Your task to perform on an android device: clear all cookies in the chrome app Image 0: 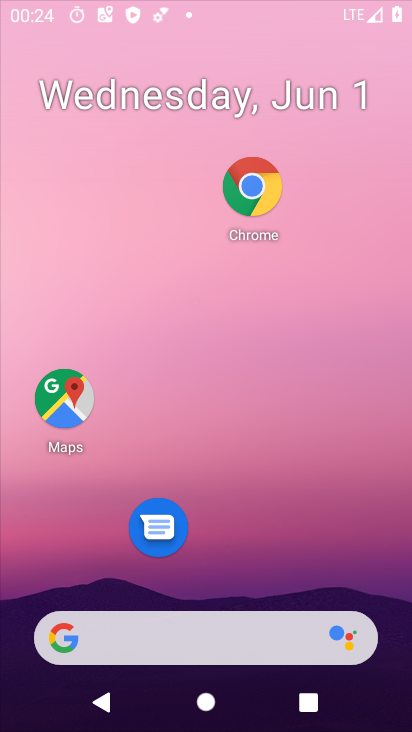
Step 0: click (247, 194)
Your task to perform on an android device: clear all cookies in the chrome app Image 1: 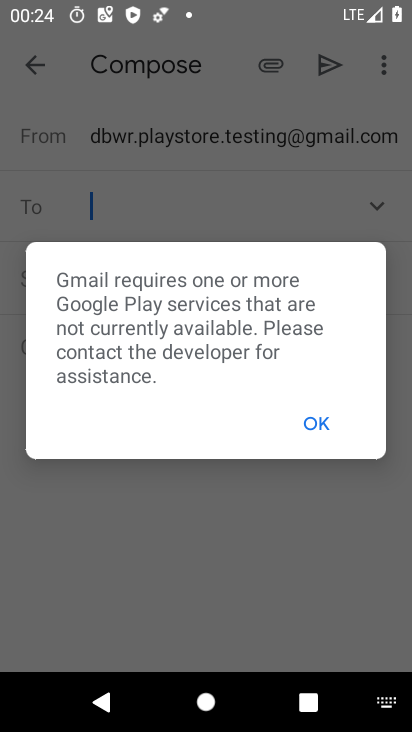
Step 1: press home button
Your task to perform on an android device: clear all cookies in the chrome app Image 2: 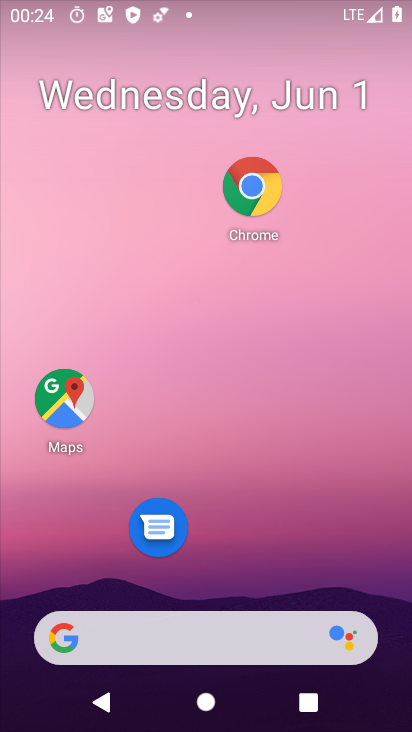
Step 2: drag from (206, 529) to (229, 17)
Your task to perform on an android device: clear all cookies in the chrome app Image 3: 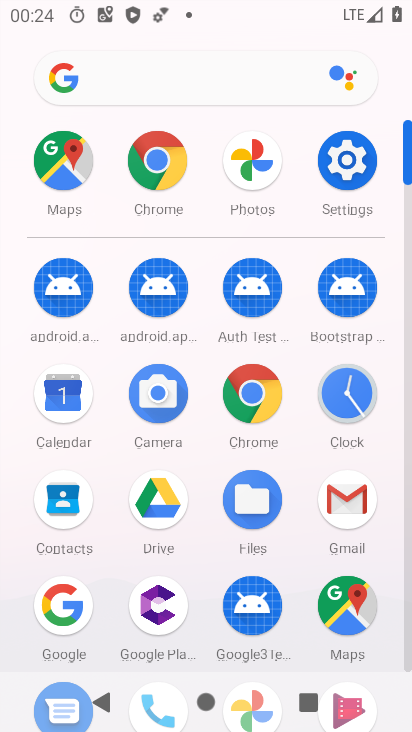
Step 3: click (254, 394)
Your task to perform on an android device: clear all cookies in the chrome app Image 4: 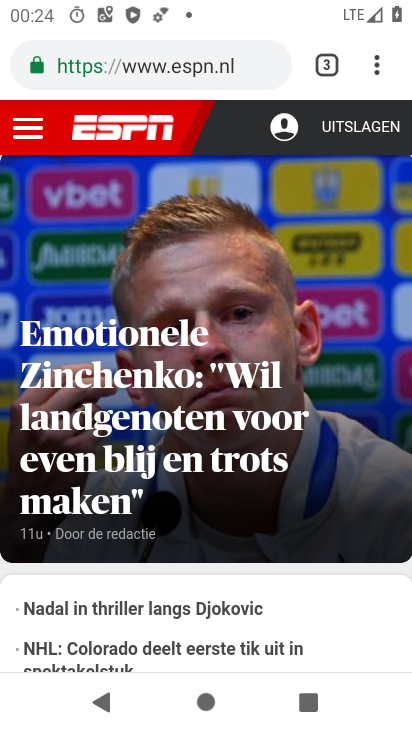
Step 4: drag from (220, 510) to (235, 319)
Your task to perform on an android device: clear all cookies in the chrome app Image 5: 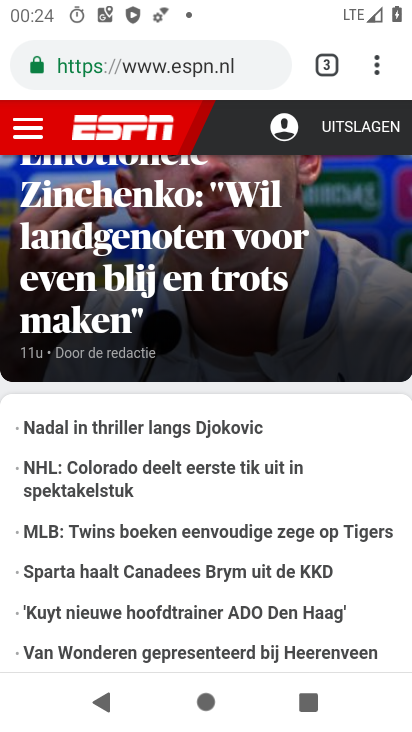
Step 5: drag from (380, 70) to (160, 588)
Your task to perform on an android device: clear all cookies in the chrome app Image 6: 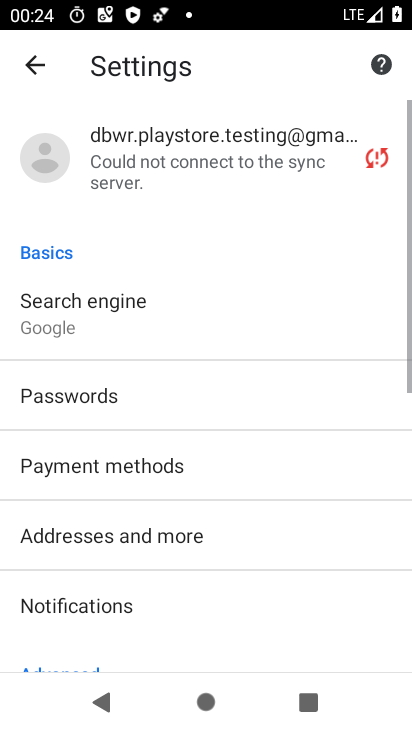
Step 6: drag from (203, 630) to (236, 133)
Your task to perform on an android device: clear all cookies in the chrome app Image 7: 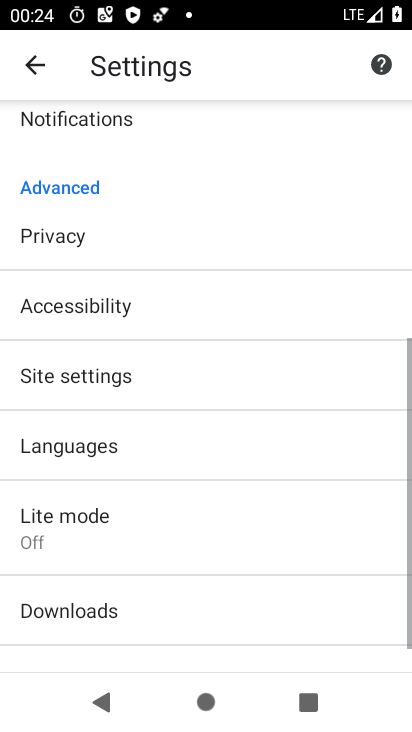
Step 7: drag from (137, 446) to (137, 277)
Your task to perform on an android device: clear all cookies in the chrome app Image 8: 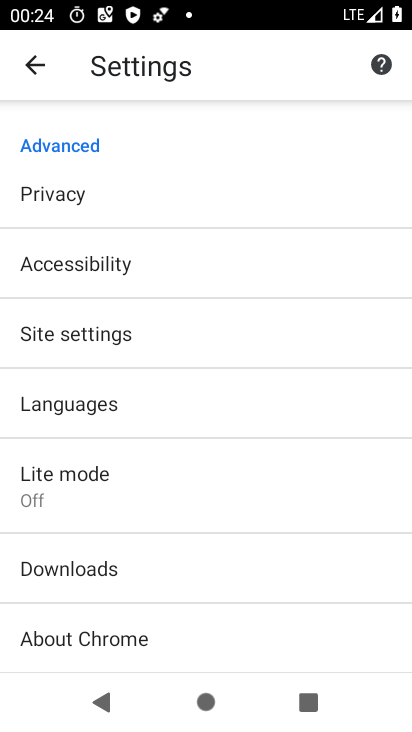
Step 8: drag from (198, 481) to (205, 219)
Your task to perform on an android device: clear all cookies in the chrome app Image 9: 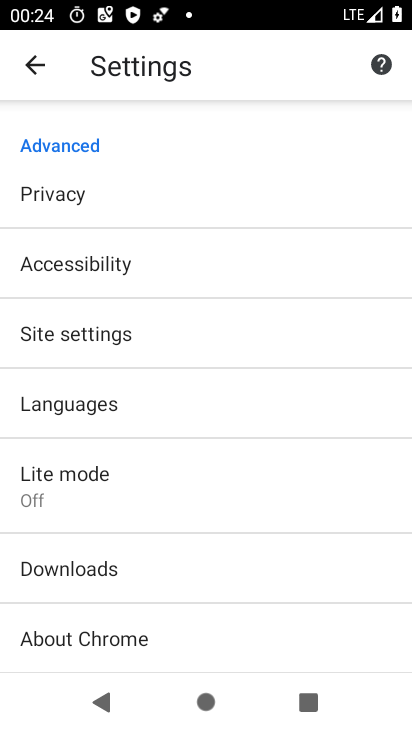
Step 9: drag from (200, 423) to (209, 203)
Your task to perform on an android device: clear all cookies in the chrome app Image 10: 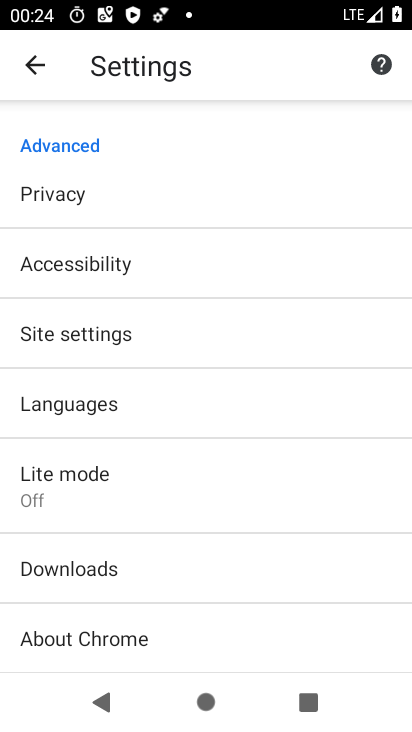
Step 10: drag from (182, 301) to (206, 167)
Your task to perform on an android device: clear all cookies in the chrome app Image 11: 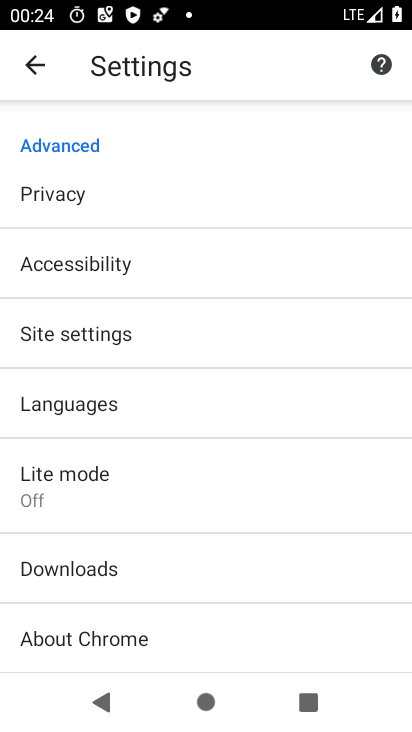
Step 11: drag from (167, 404) to (198, 192)
Your task to perform on an android device: clear all cookies in the chrome app Image 12: 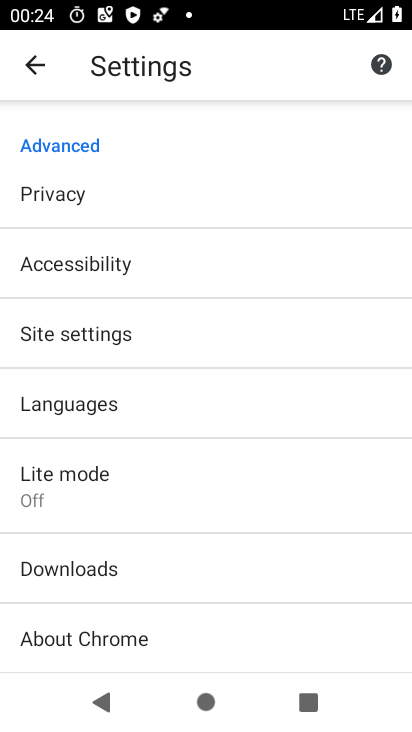
Step 12: click (132, 312)
Your task to perform on an android device: clear all cookies in the chrome app Image 13: 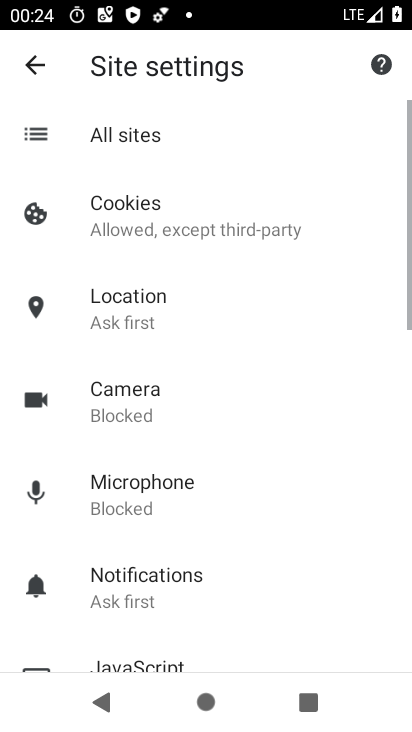
Step 13: click (202, 212)
Your task to perform on an android device: clear all cookies in the chrome app Image 14: 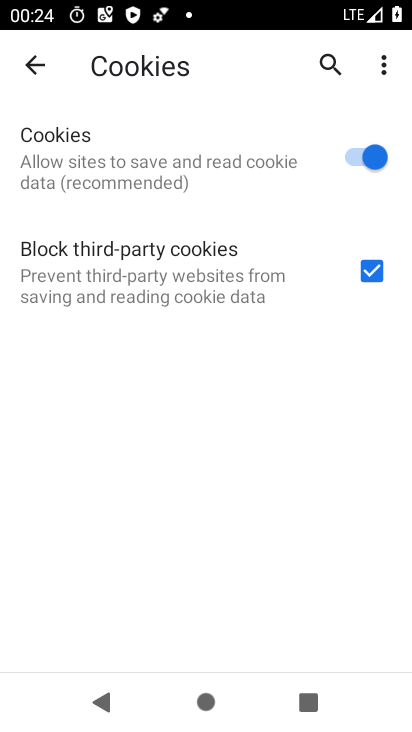
Step 14: drag from (247, 523) to (267, 246)
Your task to perform on an android device: clear all cookies in the chrome app Image 15: 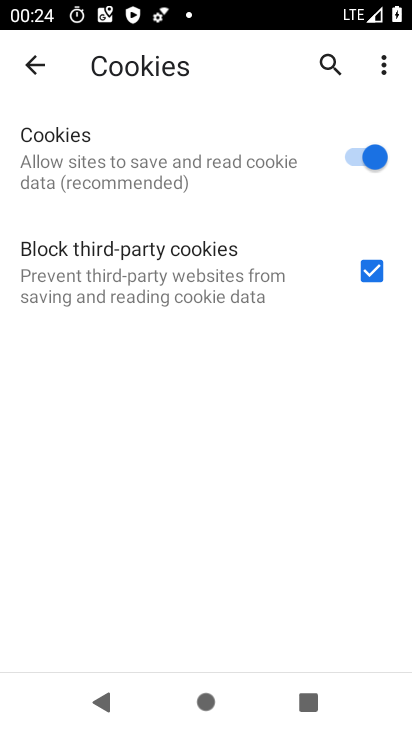
Step 15: click (42, 73)
Your task to perform on an android device: clear all cookies in the chrome app Image 16: 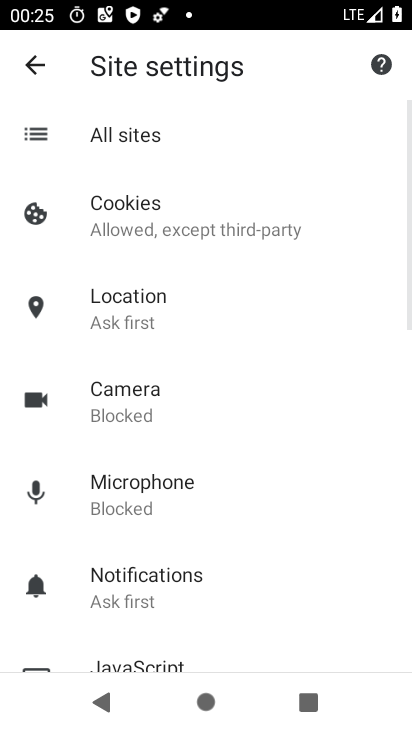
Step 16: click (36, 49)
Your task to perform on an android device: clear all cookies in the chrome app Image 17: 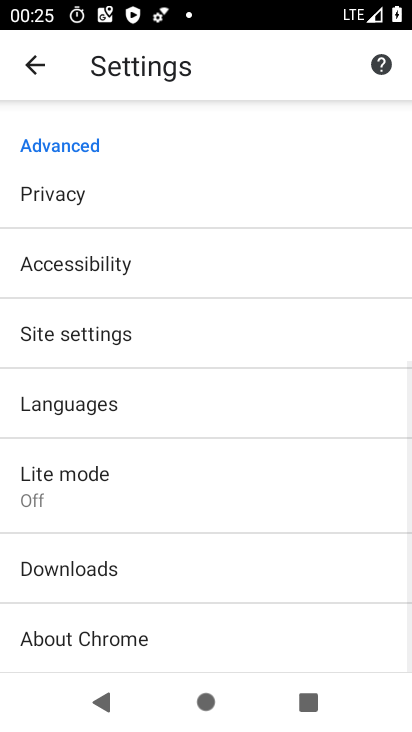
Step 17: click (25, 72)
Your task to perform on an android device: clear all cookies in the chrome app Image 18: 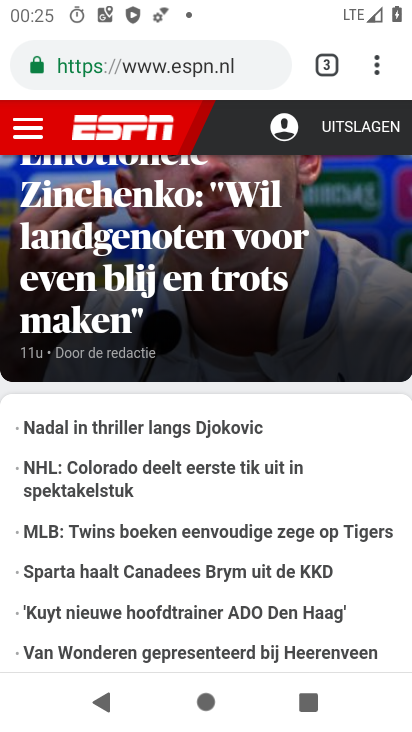
Step 18: click (365, 73)
Your task to perform on an android device: clear all cookies in the chrome app Image 19: 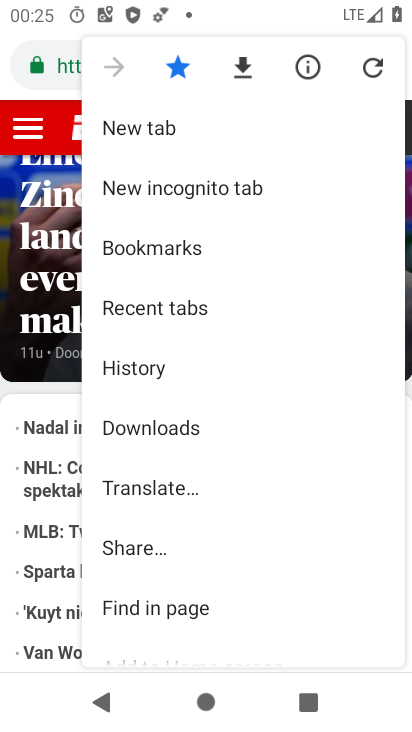
Step 19: drag from (176, 553) to (230, 153)
Your task to perform on an android device: clear all cookies in the chrome app Image 20: 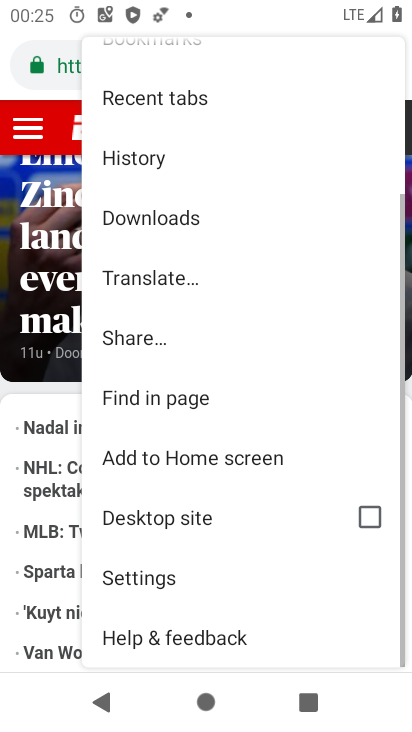
Step 20: click (149, 548)
Your task to perform on an android device: clear all cookies in the chrome app Image 21: 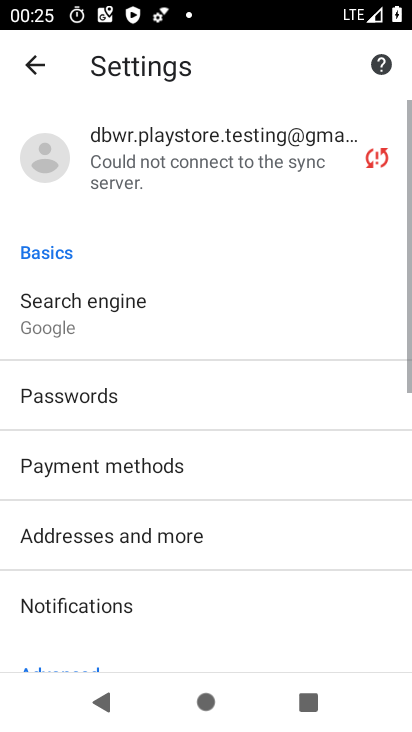
Step 21: drag from (218, 475) to (238, 137)
Your task to perform on an android device: clear all cookies in the chrome app Image 22: 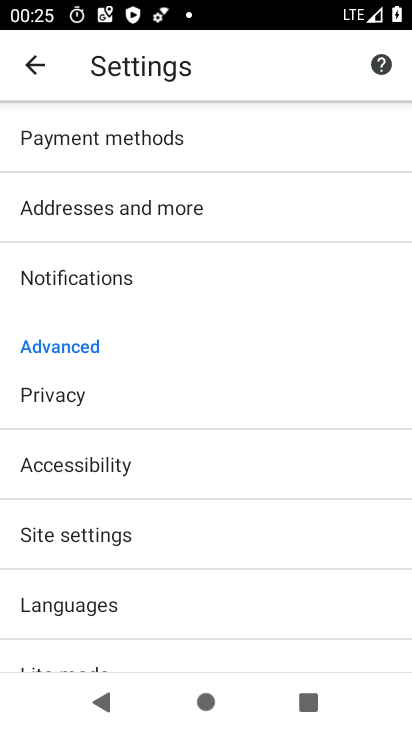
Step 22: drag from (151, 510) to (137, 125)
Your task to perform on an android device: clear all cookies in the chrome app Image 23: 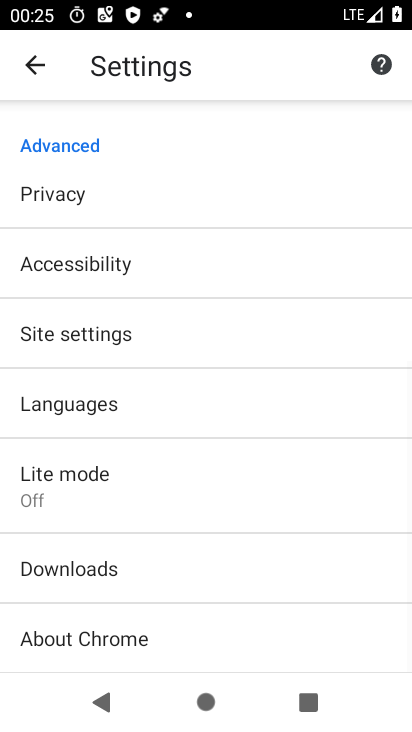
Step 23: click (39, 45)
Your task to perform on an android device: clear all cookies in the chrome app Image 24: 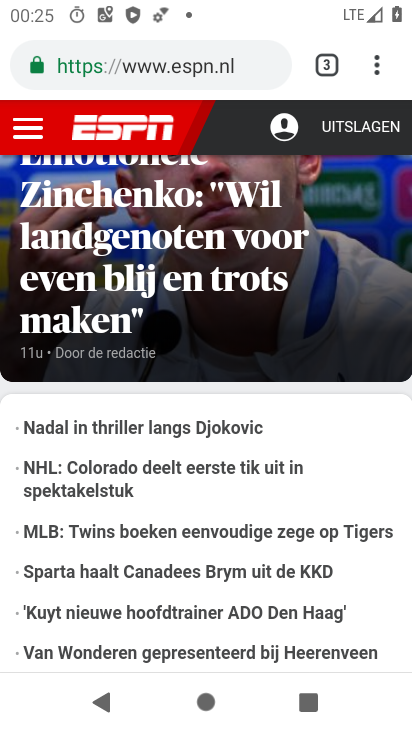
Step 24: click (375, 63)
Your task to perform on an android device: clear all cookies in the chrome app Image 25: 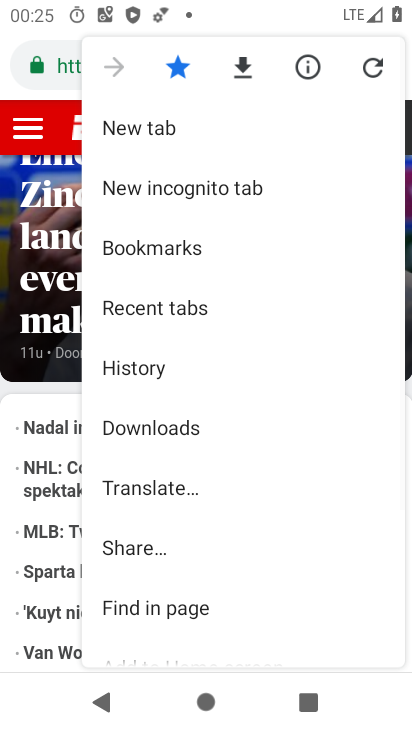
Step 25: click (182, 356)
Your task to perform on an android device: clear all cookies in the chrome app Image 26: 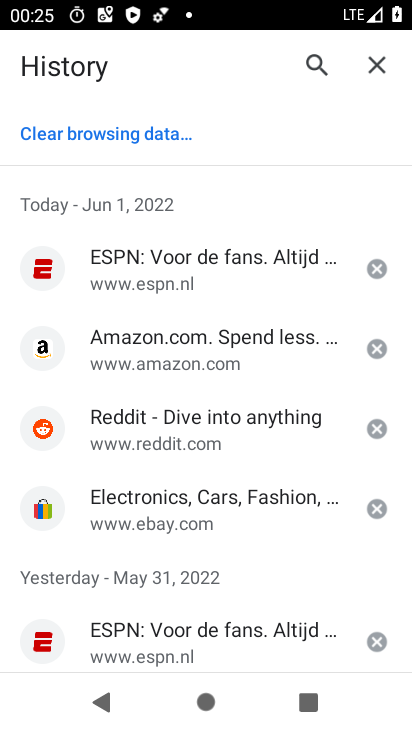
Step 26: click (90, 138)
Your task to perform on an android device: clear all cookies in the chrome app Image 27: 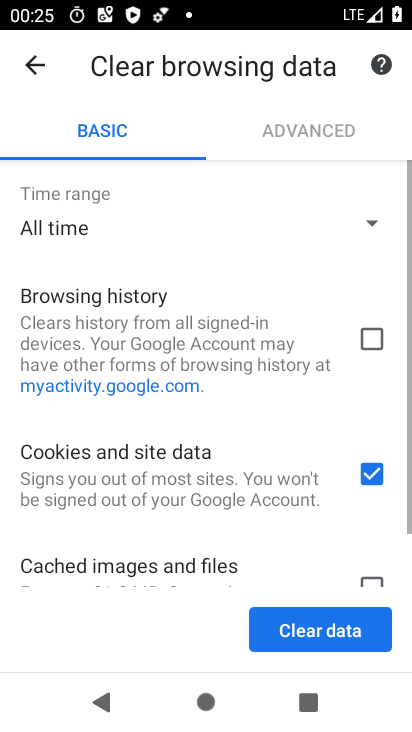
Step 27: drag from (116, 467) to (134, 99)
Your task to perform on an android device: clear all cookies in the chrome app Image 28: 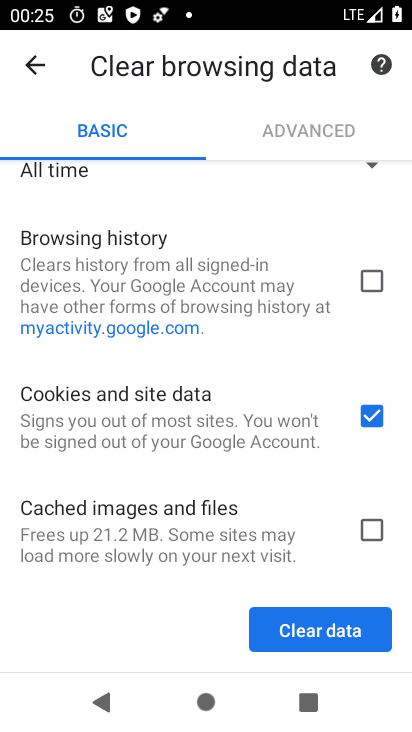
Step 28: drag from (278, 297) to (387, 694)
Your task to perform on an android device: clear all cookies in the chrome app Image 29: 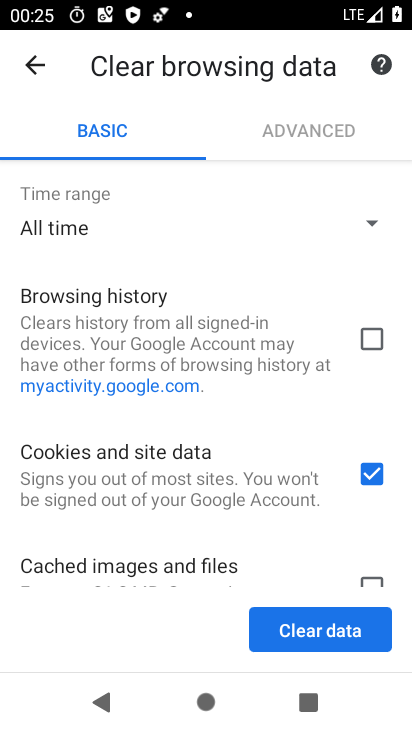
Step 29: click (320, 618)
Your task to perform on an android device: clear all cookies in the chrome app Image 30: 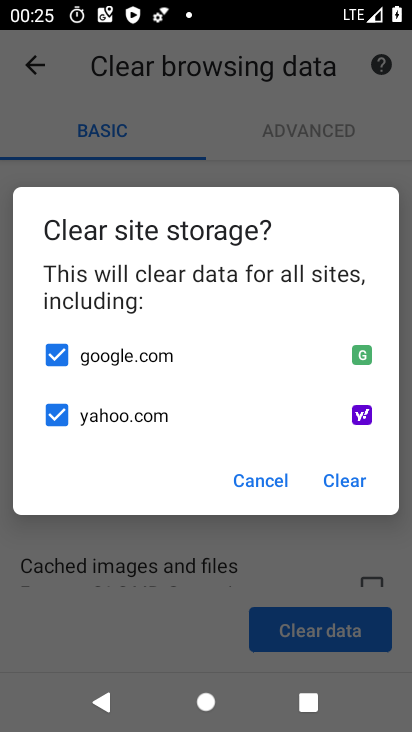
Step 30: click (339, 480)
Your task to perform on an android device: clear all cookies in the chrome app Image 31: 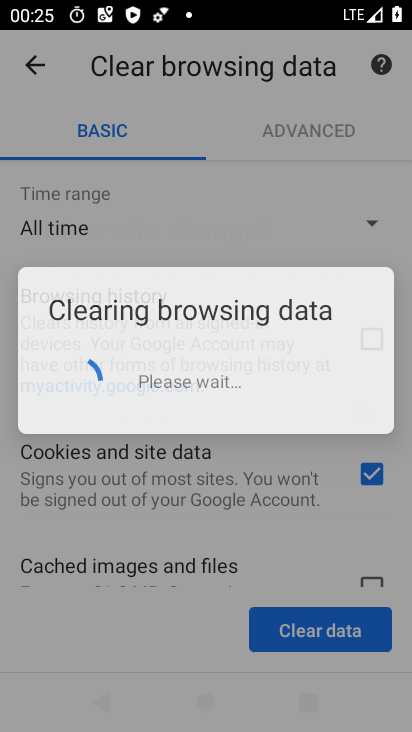
Step 31: task complete